Your task to perform on an android device: turn on priority inbox in the gmail app Image 0: 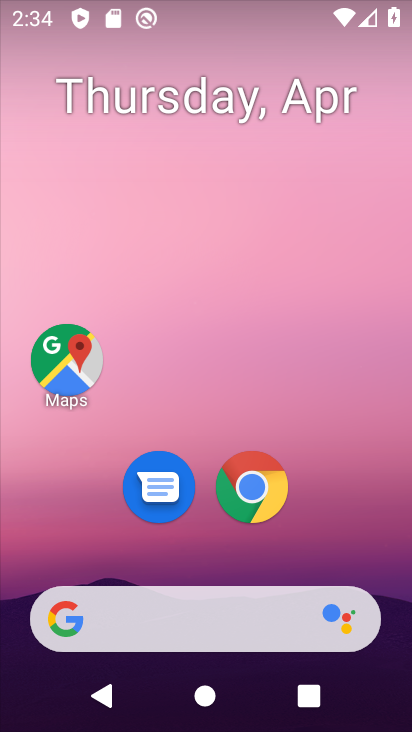
Step 0: drag from (247, 498) to (352, 176)
Your task to perform on an android device: turn on priority inbox in the gmail app Image 1: 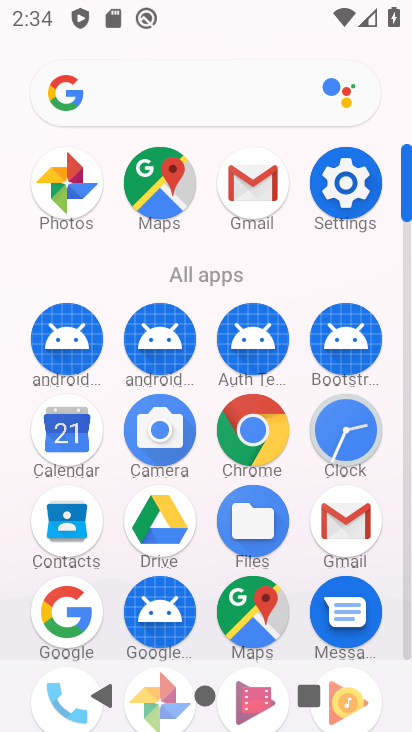
Step 1: click (358, 517)
Your task to perform on an android device: turn on priority inbox in the gmail app Image 2: 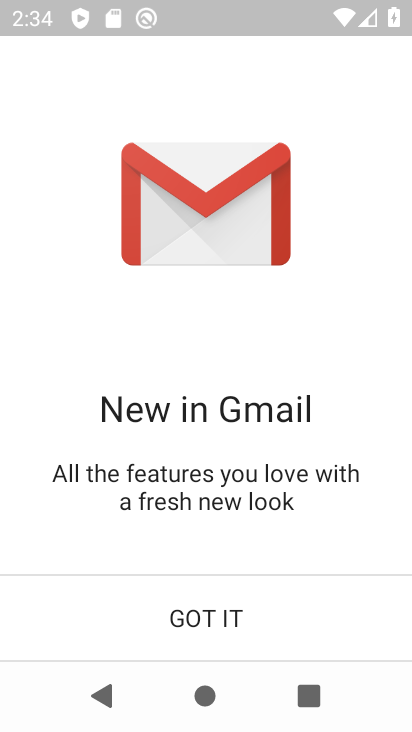
Step 2: click (256, 614)
Your task to perform on an android device: turn on priority inbox in the gmail app Image 3: 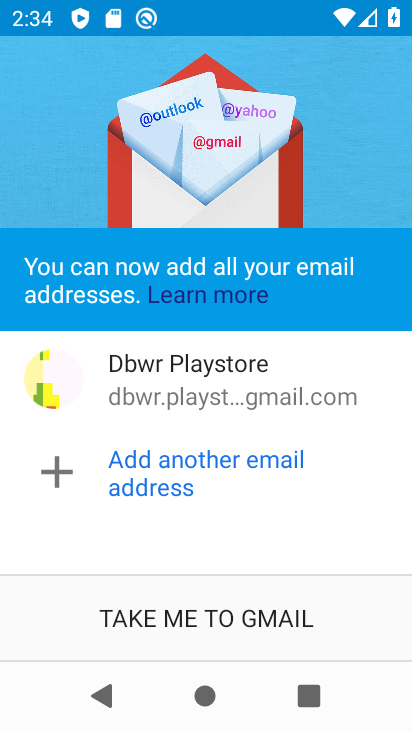
Step 3: click (251, 613)
Your task to perform on an android device: turn on priority inbox in the gmail app Image 4: 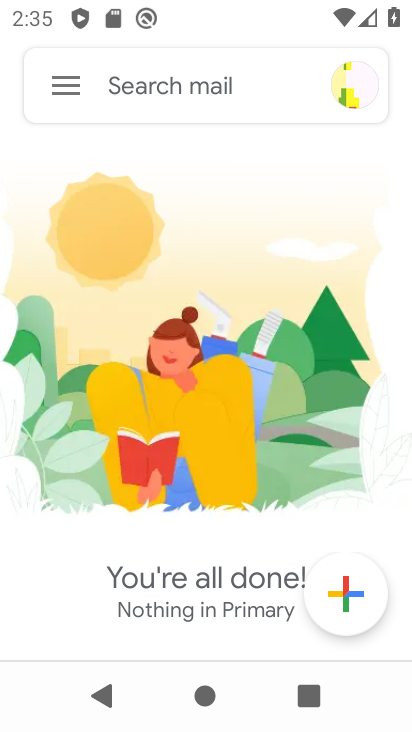
Step 4: click (64, 71)
Your task to perform on an android device: turn on priority inbox in the gmail app Image 5: 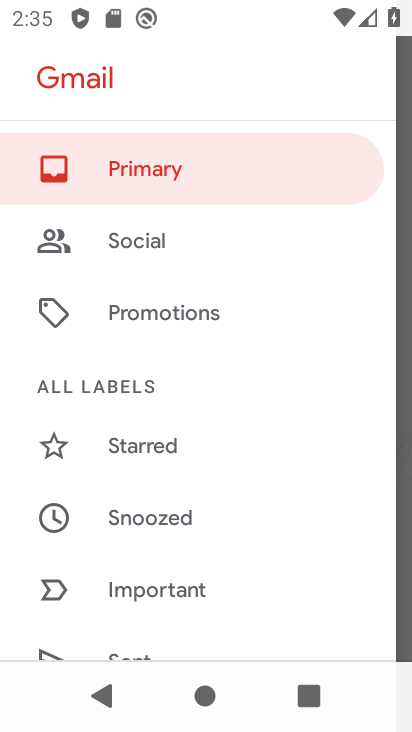
Step 5: drag from (145, 606) to (211, 219)
Your task to perform on an android device: turn on priority inbox in the gmail app Image 6: 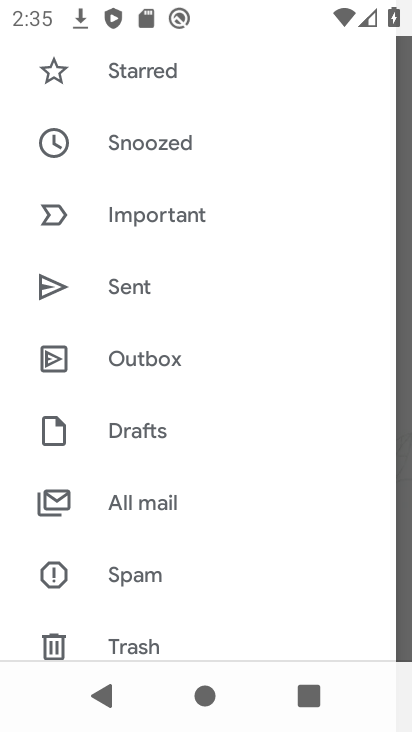
Step 6: drag from (201, 421) to (210, 168)
Your task to perform on an android device: turn on priority inbox in the gmail app Image 7: 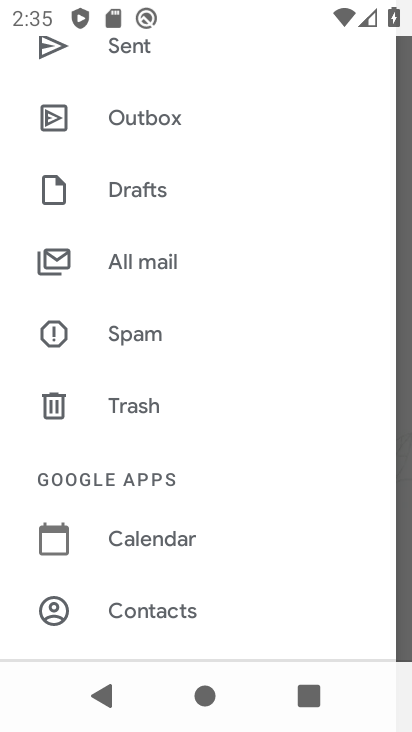
Step 7: drag from (231, 477) to (258, 303)
Your task to perform on an android device: turn on priority inbox in the gmail app Image 8: 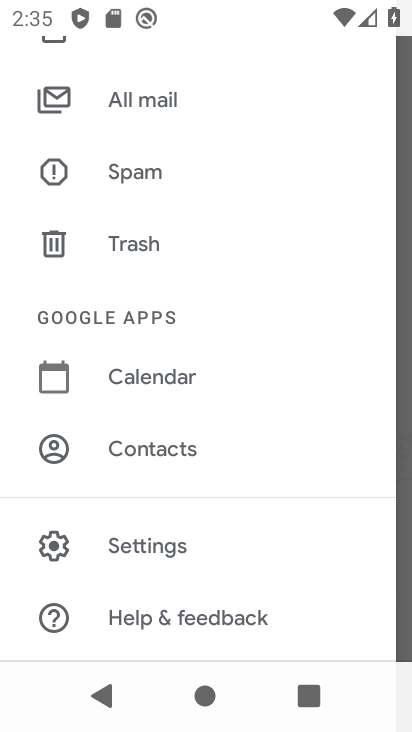
Step 8: click (205, 558)
Your task to perform on an android device: turn on priority inbox in the gmail app Image 9: 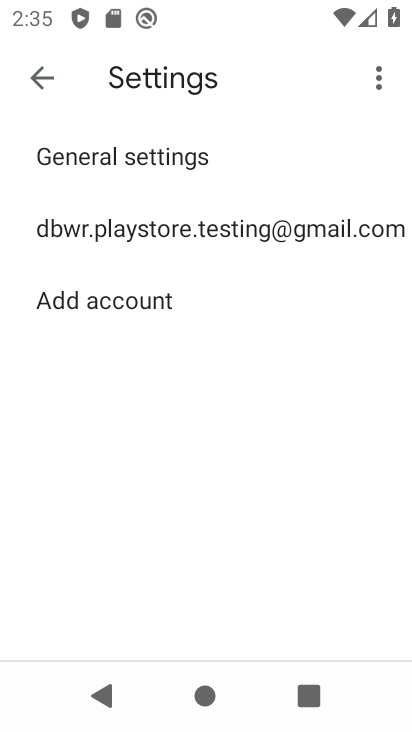
Step 9: click (214, 225)
Your task to perform on an android device: turn on priority inbox in the gmail app Image 10: 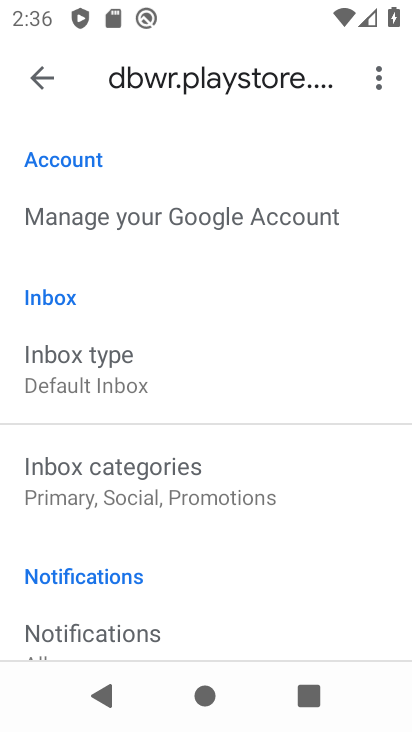
Step 10: click (130, 389)
Your task to perform on an android device: turn on priority inbox in the gmail app Image 11: 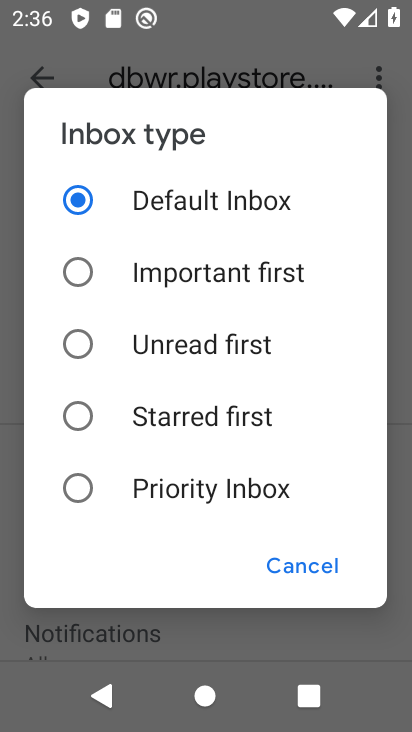
Step 11: click (80, 489)
Your task to perform on an android device: turn on priority inbox in the gmail app Image 12: 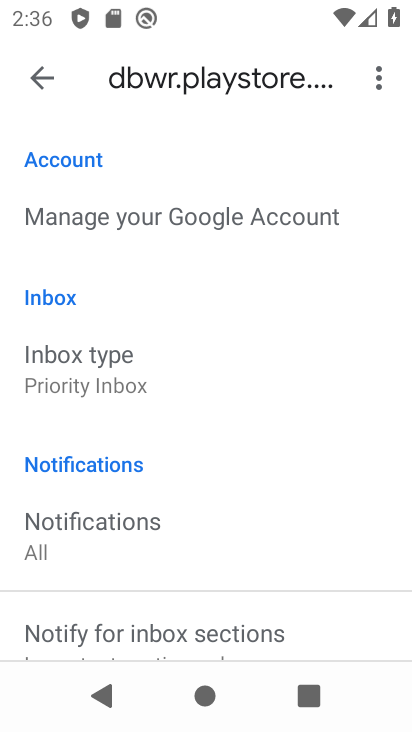
Step 12: task complete